Your task to perform on an android device: Search for pizza restaurants on Maps Image 0: 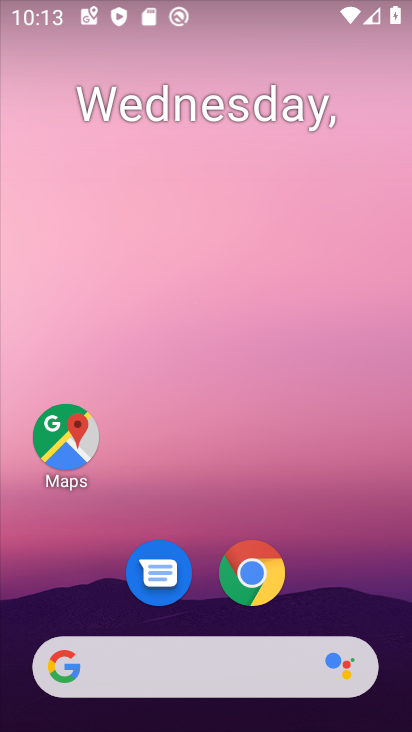
Step 0: drag from (360, 587) to (370, 146)
Your task to perform on an android device: Search for pizza restaurants on Maps Image 1: 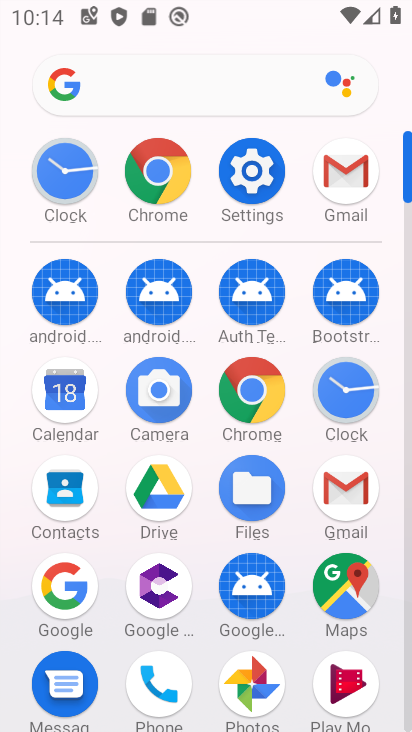
Step 1: click (353, 595)
Your task to perform on an android device: Search for pizza restaurants on Maps Image 2: 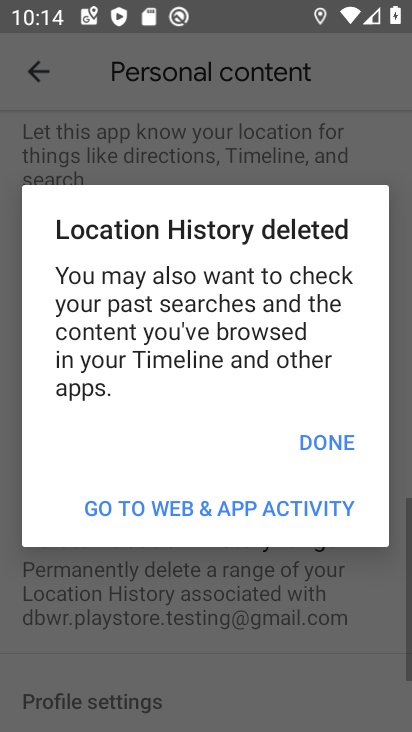
Step 2: press back button
Your task to perform on an android device: Search for pizza restaurants on Maps Image 3: 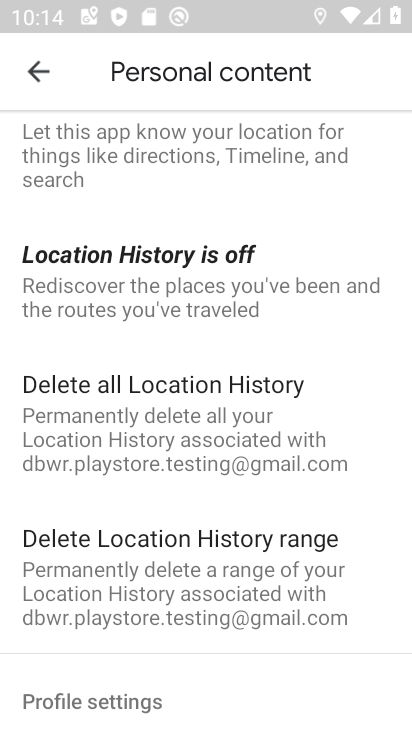
Step 3: press back button
Your task to perform on an android device: Search for pizza restaurants on Maps Image 4: 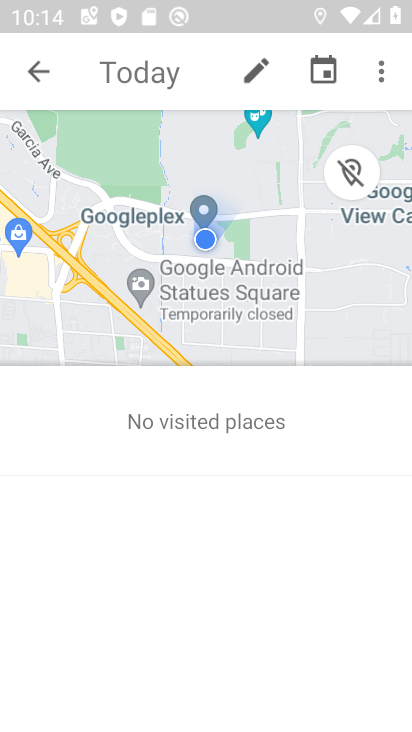
Step 4: press back button
Your task to perform on an android device: Search for pizza restaurants on Maps Image 5: 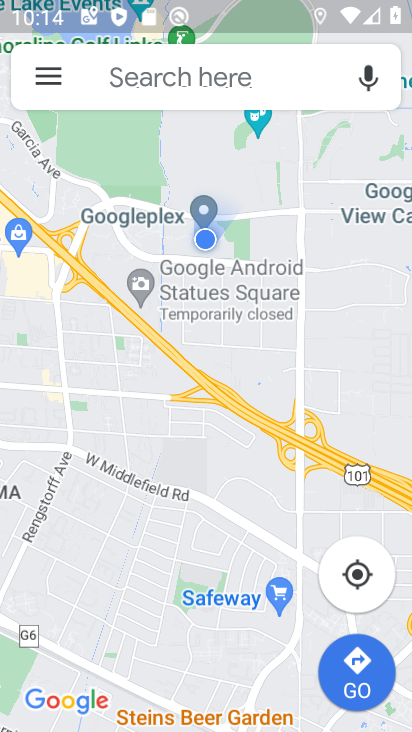
Step 5: click (169, 88)
Your task to perform on an android device: Search for pizza restaurants on Maps Image 6: 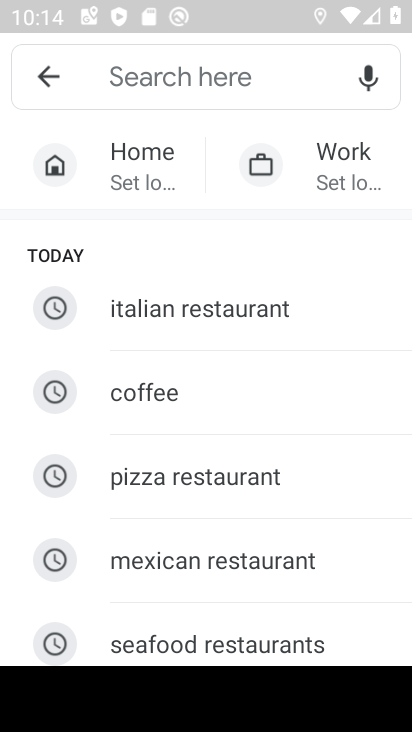
Step 6: type "pizza restaurants"
Your task to perform on an android device: Search for pizza restaurants on Maps Image 7: 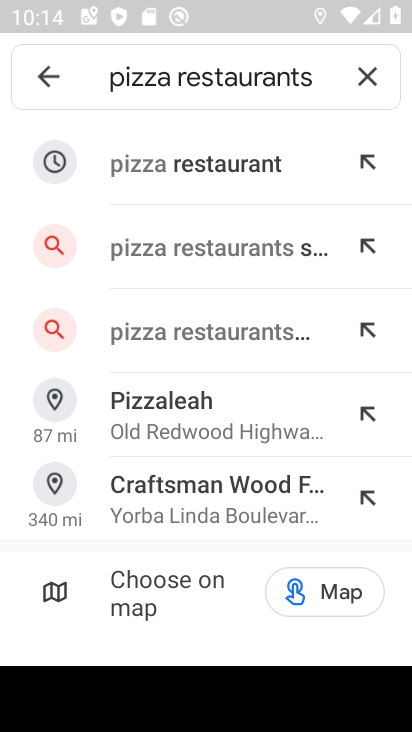
Step 7: click (222, 161)
Your task to perform on an android device: Search for pizza restaurants on Maps Image 8: 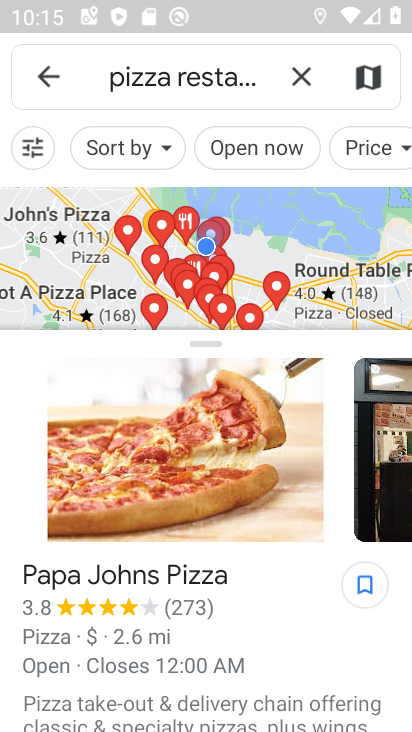
Step 8: task complete